Your task to perform on an android device: Go to accessibility settings Image 0: 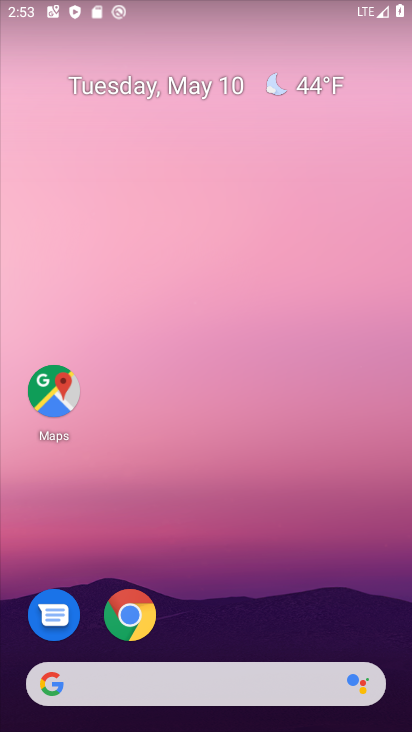
Step 0: drag from (341, 615) to (283, 52)
Your task to perform on an android device: Go to accessibility settings Image 1: 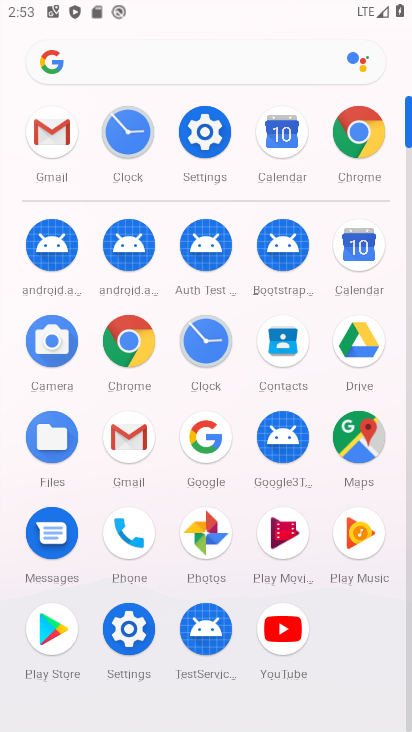
Step 1: click (202, 125)
Your task to perform on an android device: Go to accessibility settings Image 2: 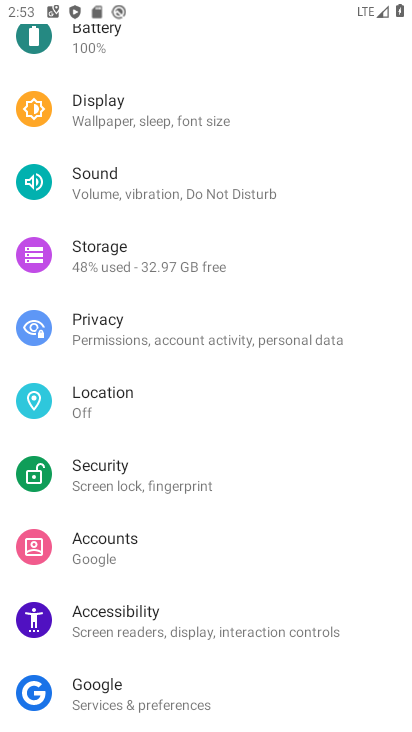
Step 2: click (136, 592)
Your task to perform on an android device: Go to accessibility settings Image 3: 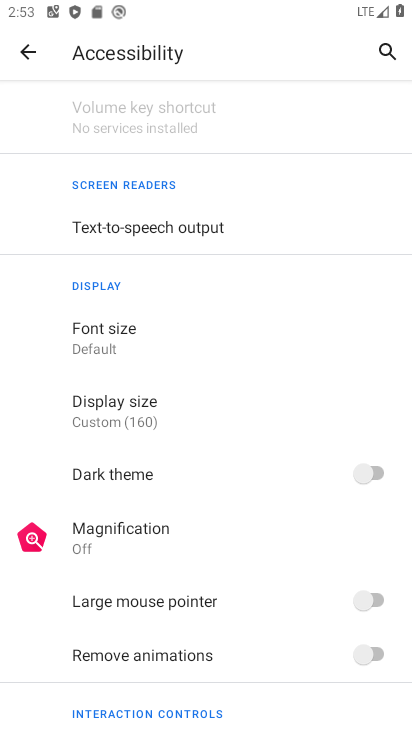
Step 3: task complete